Your task to perform on an android device: change the upload size in google photos Image 0: 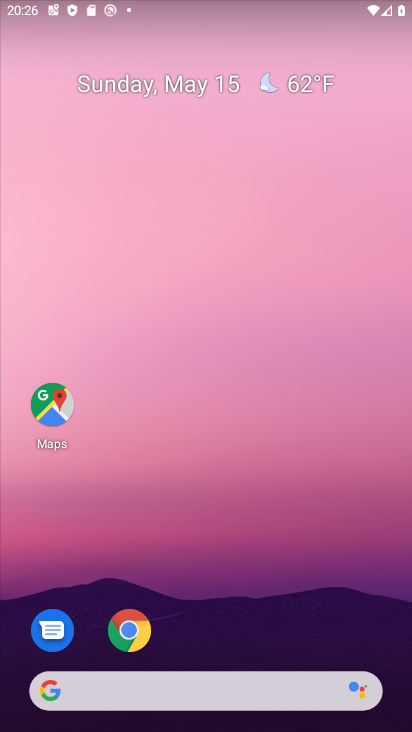
Step 0: drag from (249, 630) to (284, 141)
Your task to perform on an android device: change the upload size in google photos Image 1: 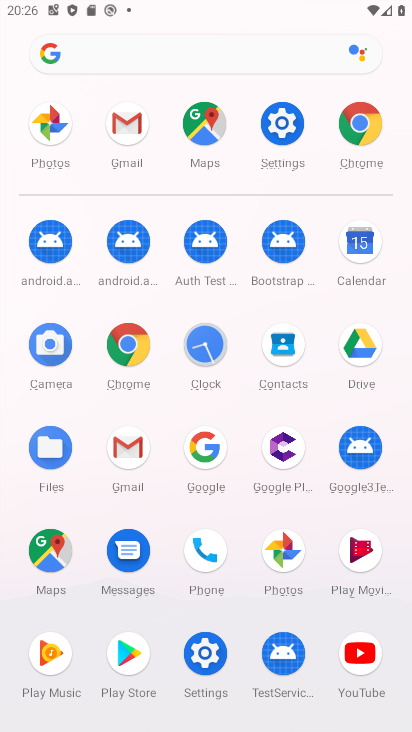
Step 1: click (282, 546)
Your task to perform on an android device: change the upload size in google photos Image 2: 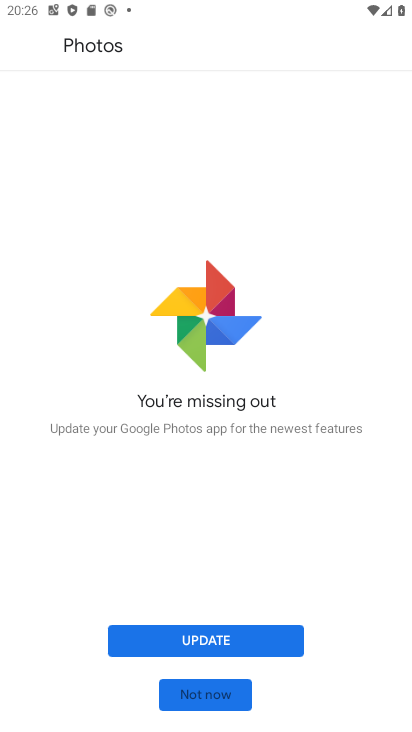
Step 2: click (222, 704)
Your task to perform on an android device: change the upload size in google photos Image 3: 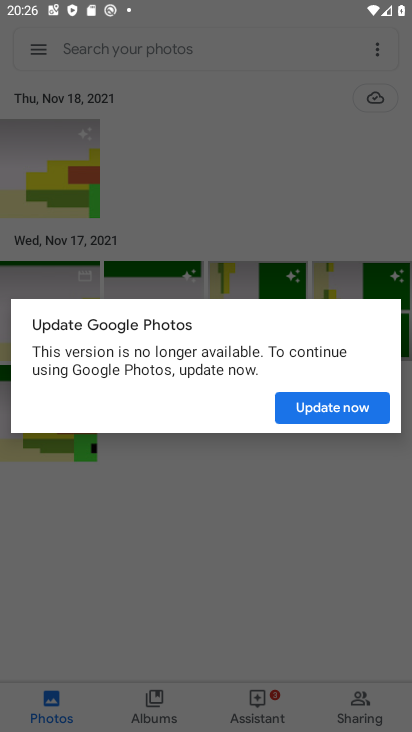
Step 3: click (253, 553)
Your task to perform on an android device: change the upload size in google photos Image 4: 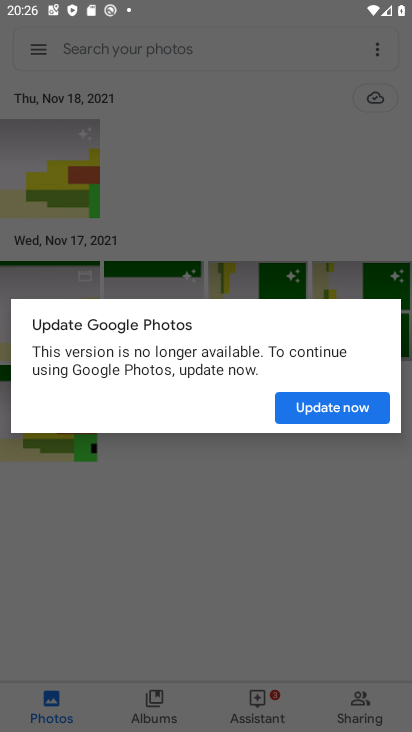
Step 4: click (322, 408)
Your task to perform on an android device: change the upload size in google photos Image 5: 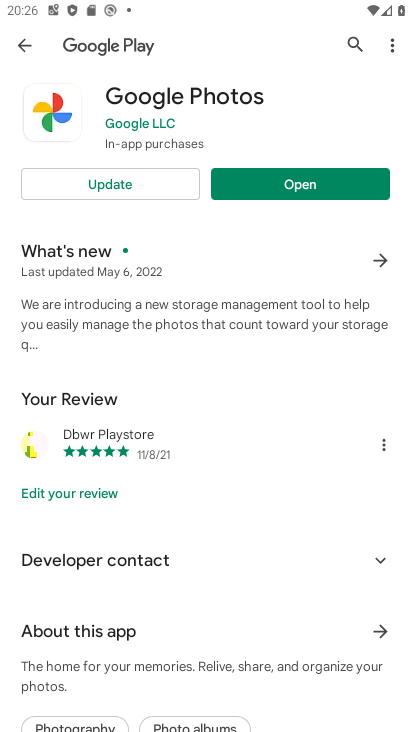
Step 5: click (265, 194)
Your task to perform on an android device: change the upload size in google photos Image 6: 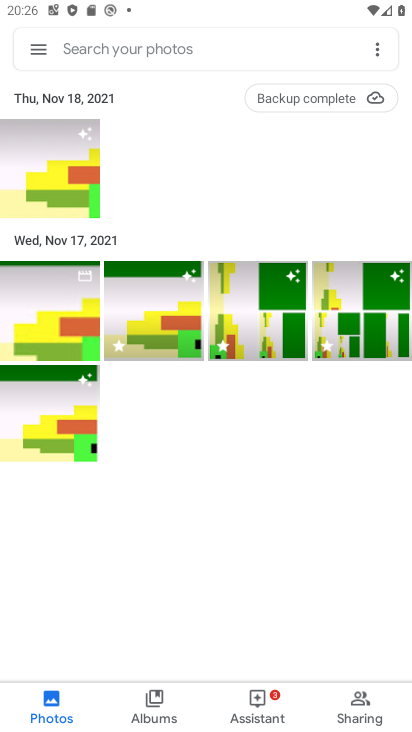
Step 6: click (30, 52)
Your task to perform on an android device: change the upload size in google photos Image 7: 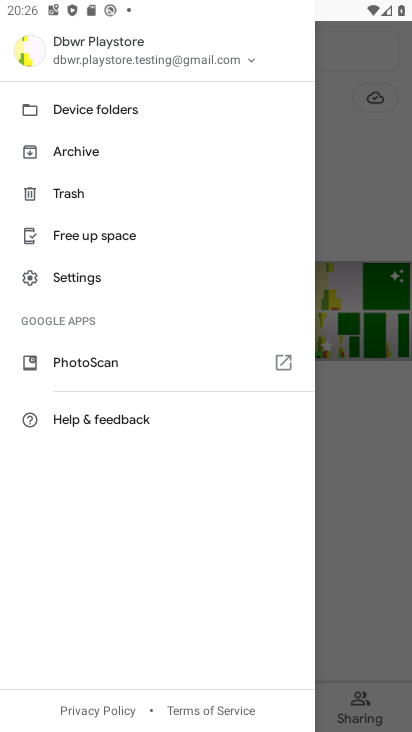
Step 7: click (79, 279)
Your task to perform on an android device: change the upload size in google photos Image 8: 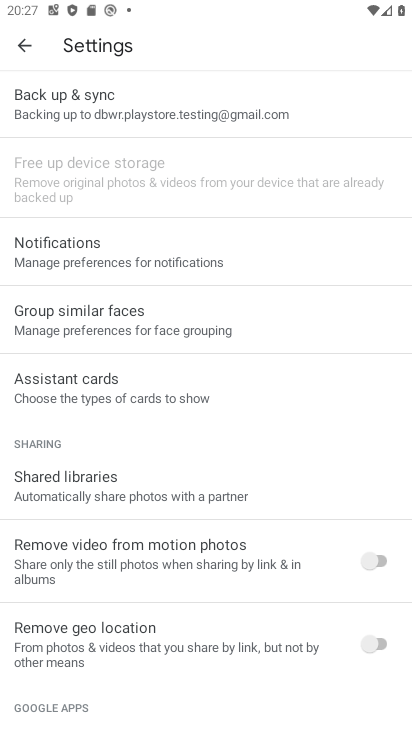
Step 8: click (79, 86)
Your task to perform on an android device: change the upload size in google photos Image 9: 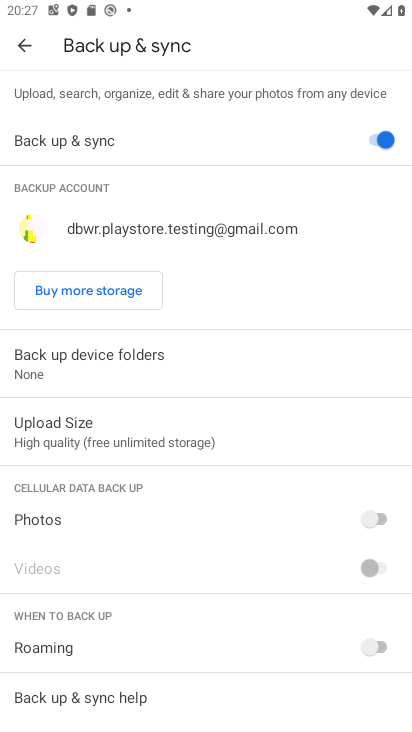
Step 9: click (113, 442)
Your task to perform on an android device: change the upload size in google photos Image 10: 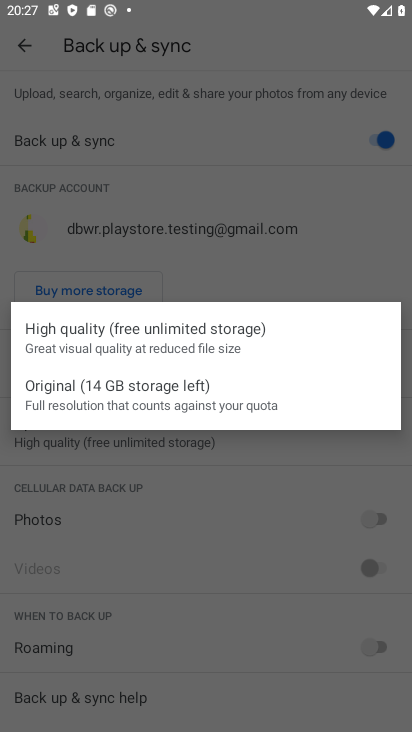
Step 10: click (77, 399)
Your task to perform on an android device: change the upload size in google photos Image 11: 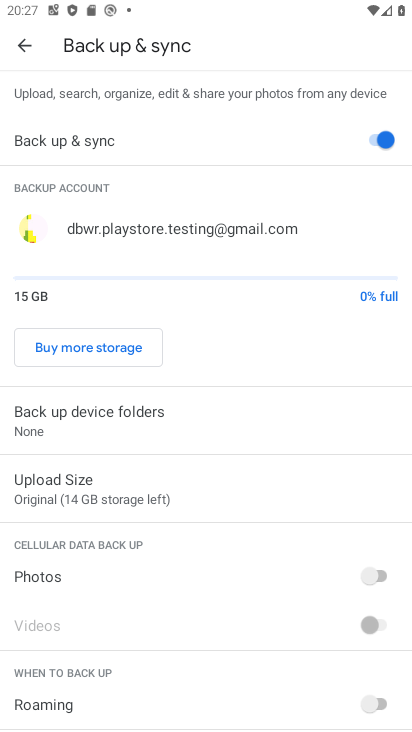
Step 11: task complete